Your task to perform on an android device: open app "The Home Depot" (install if not already installed) Image 0: 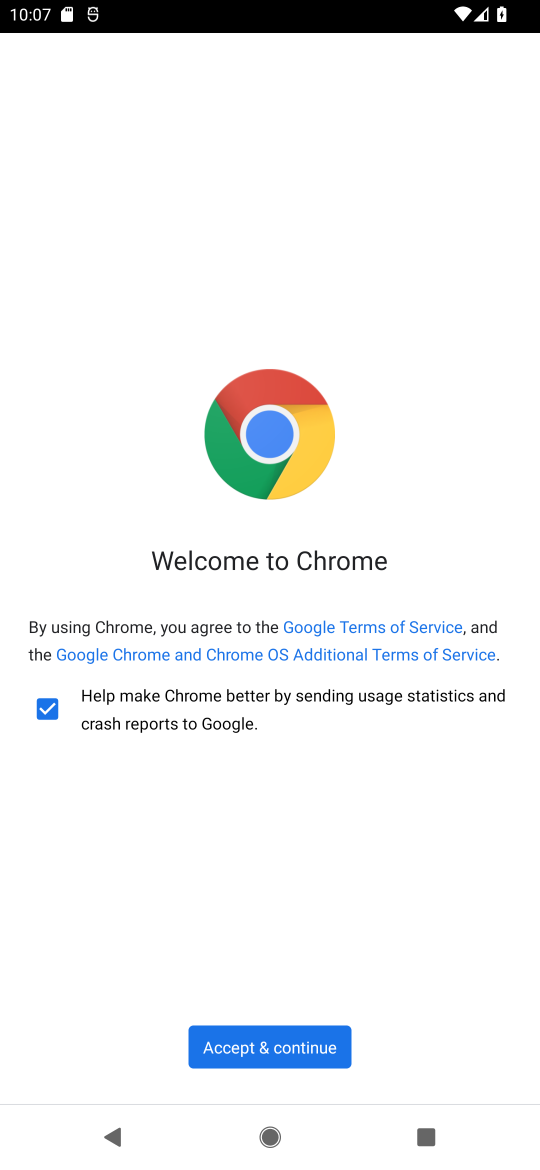
Step 0: press back button
Your task to perform on an android device: open app "The Home Depot" (install if not already installed) Image 1: 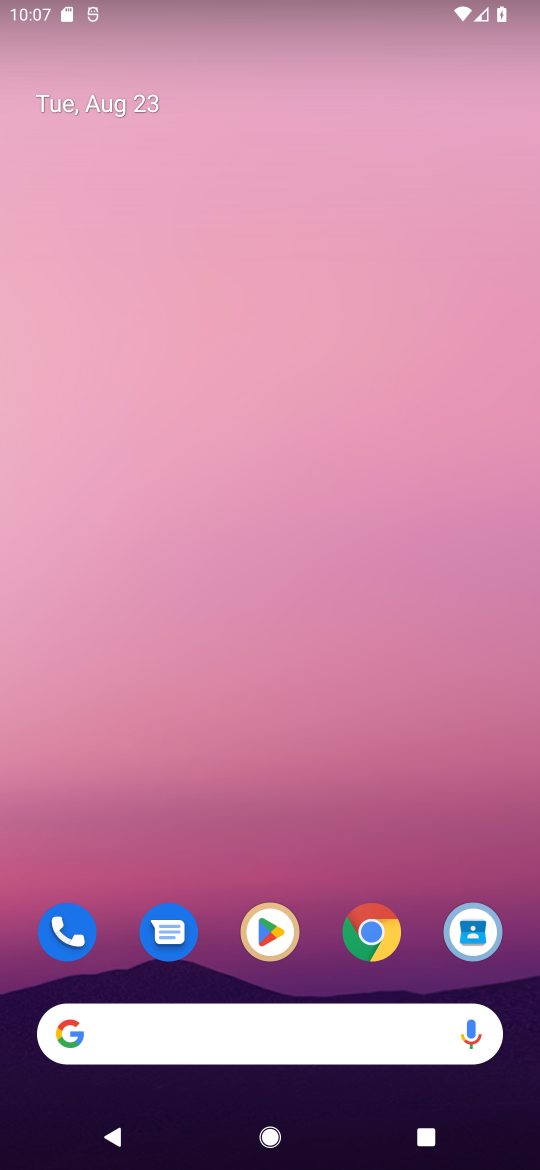
Step 1: click (279, 926)
Your task to perform on an android device: open app "The Home Depot" (install if not already installed) Image 2: 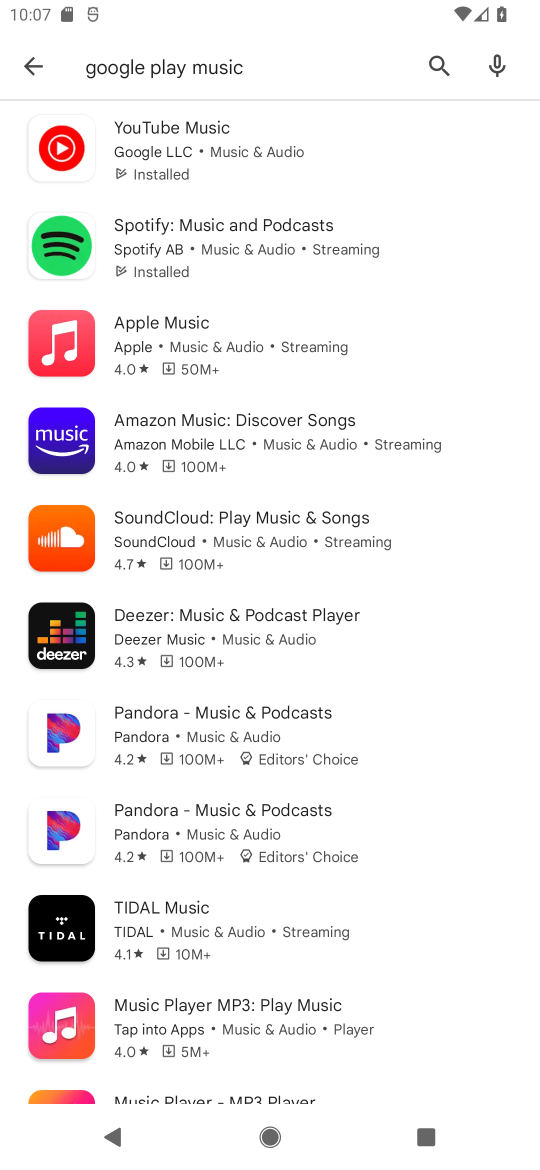
Step 2: click (436, 64)
Your task to perform on an android device: open app "The Home Depot" (install if not already installed) Image 3: 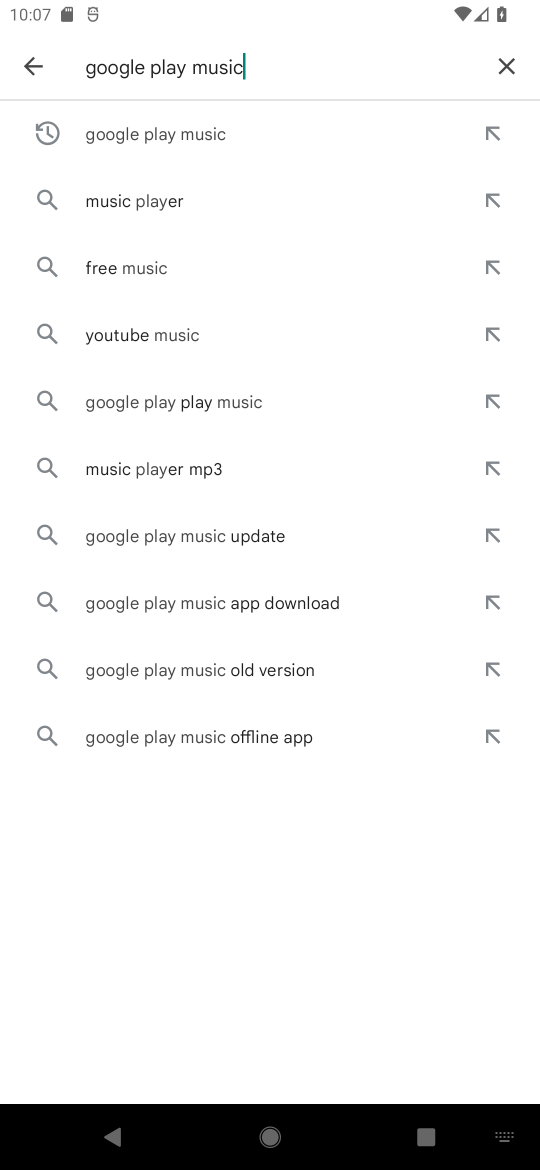
Step 3: click (518, 66)
Your task to perform on an android device: open app "The Home Depot" (install if not already installed) Image 4: 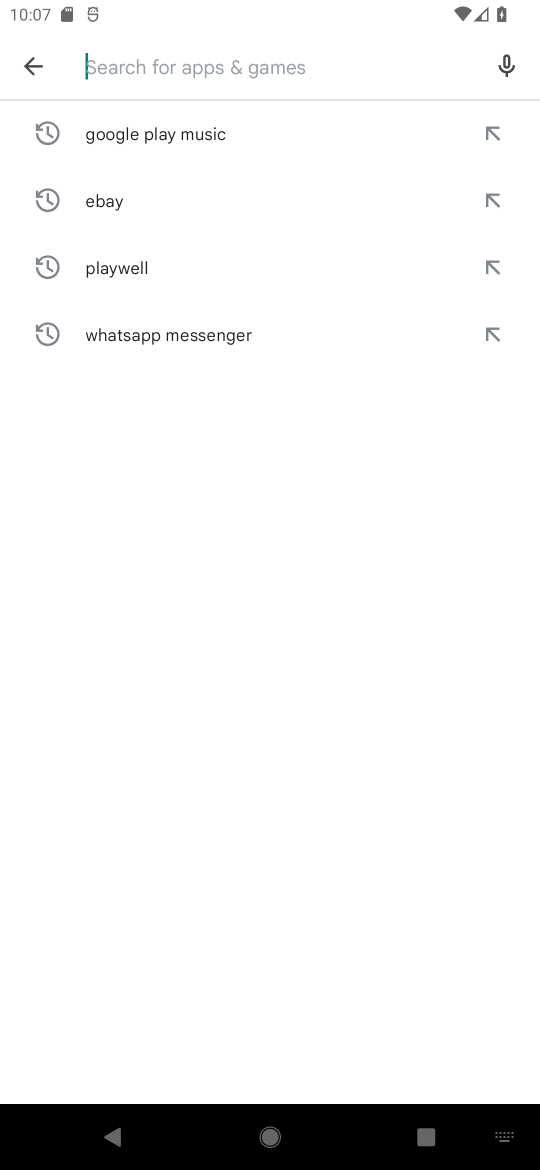
Step 4: click (207, 40)
Your task to perform on an android device: open app "The Home Depot" (install if not already installed) Image 5: 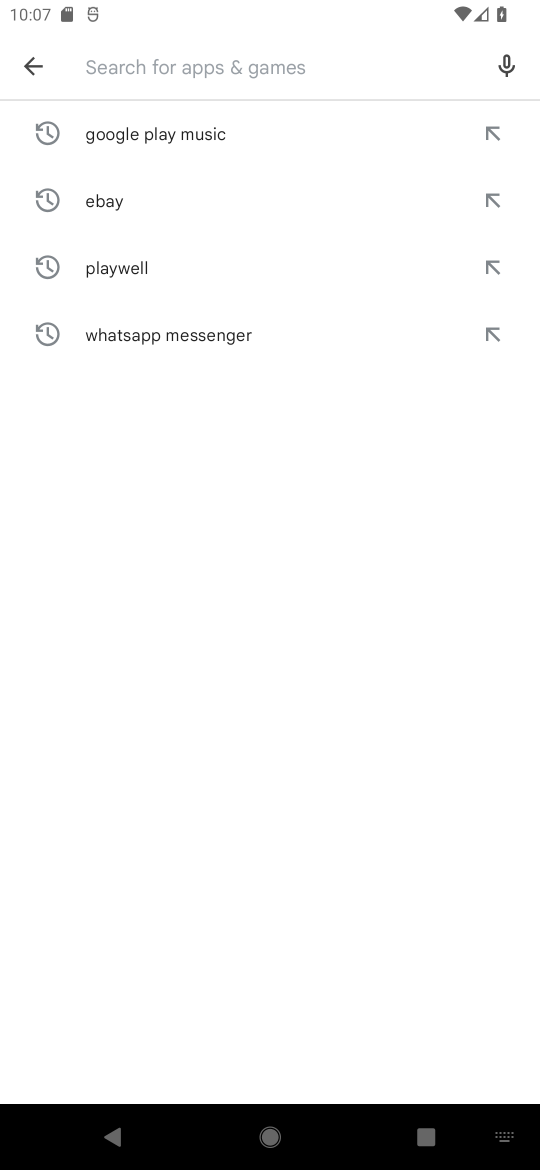
Step 5: type "The Home Depo"
Your task to perform on an android device: open app "The Home Depot" (install if not already installed) Image 6: 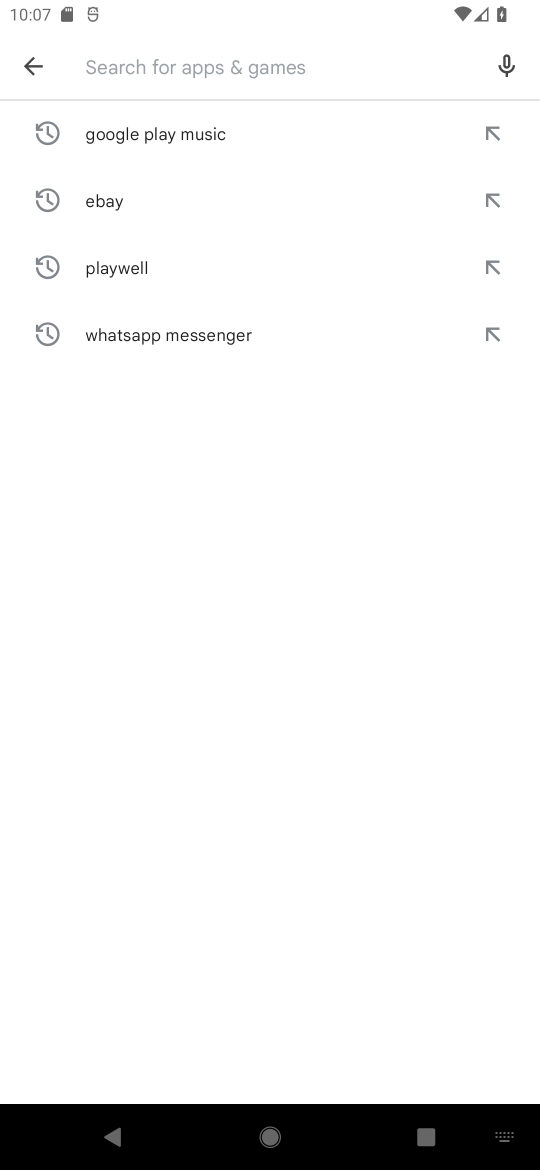
Step 6: click (359, 733)
Your task to perform on an android device: open app "The Home Depot" (install if not already installed) Image 7: 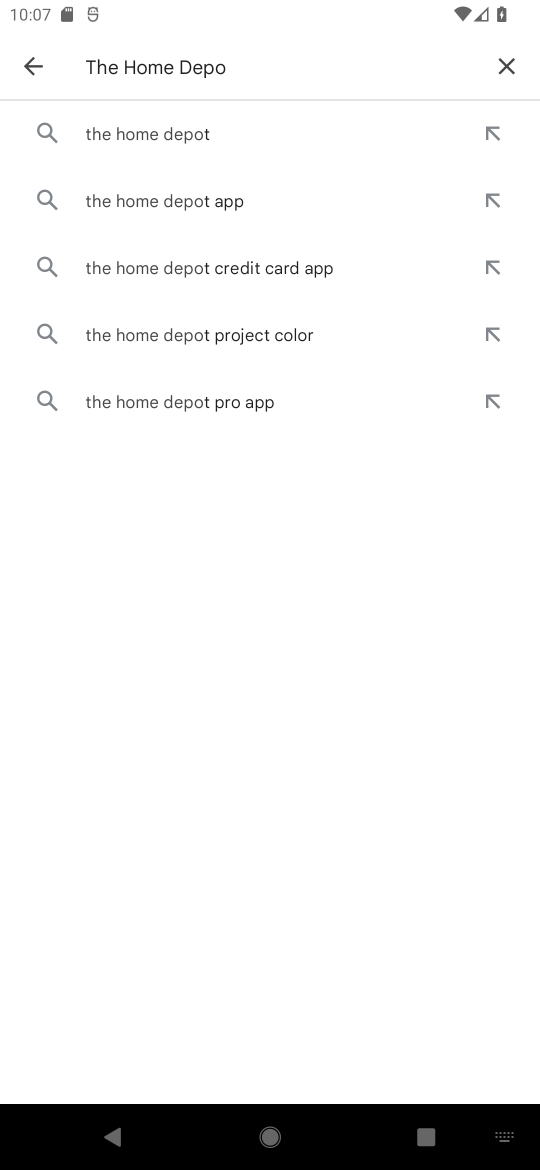
Step 7: click (141, 122)
Your task to perform on an android device: open app "The Home Depot" (install if not already installed) Image 8: 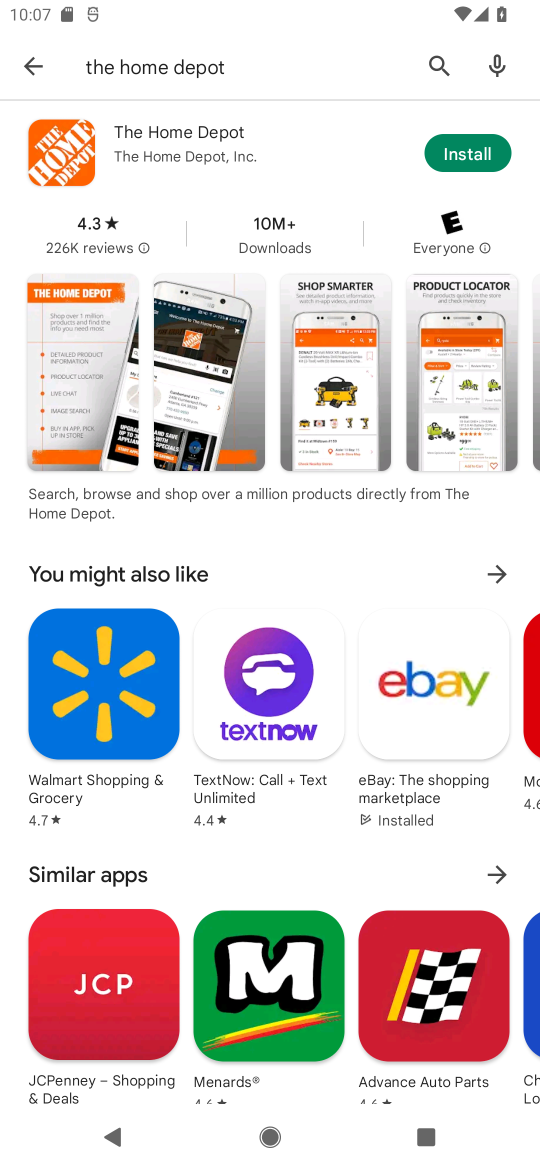
Step 8: click (462, 162)
Your task to perform on an android device: open app "The Home Depot" (install if not already installed) Image 9: 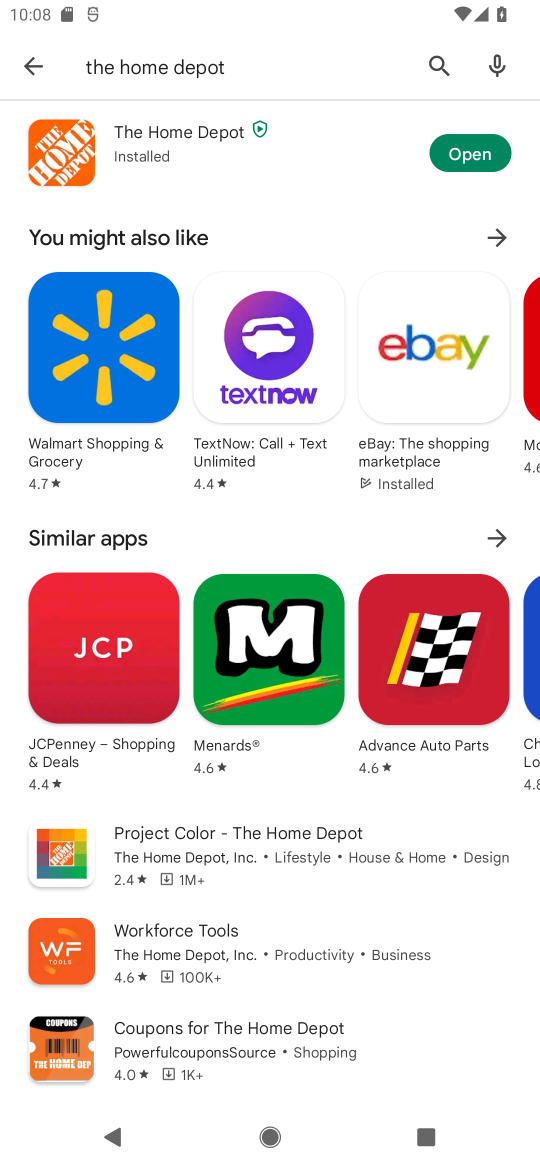
Step 9: click (471, 141)
Your task to perform on an android device: open app "The Home Depot" (install if not already installed) Image 10: 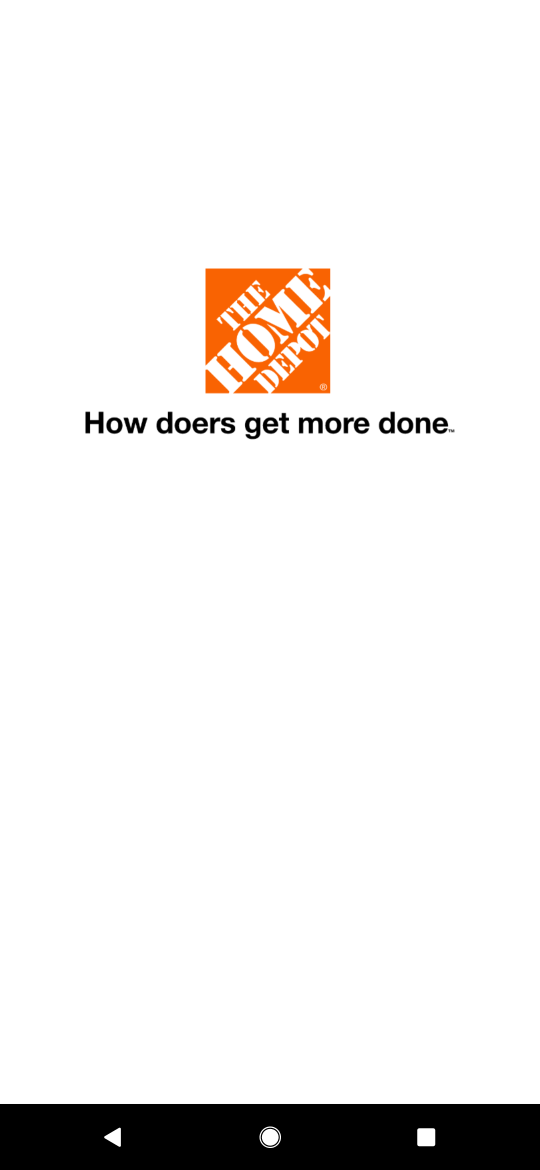
Step 10: task complete